Your task to perform on an android device: refresh tabs in the chrome app Image 0: 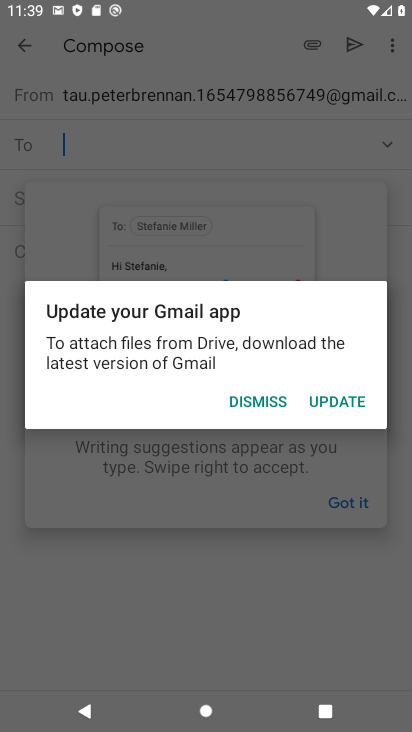
Step 0: press back button
Your task to perform on an android device: refresh tabs in the chrome app Image 1: 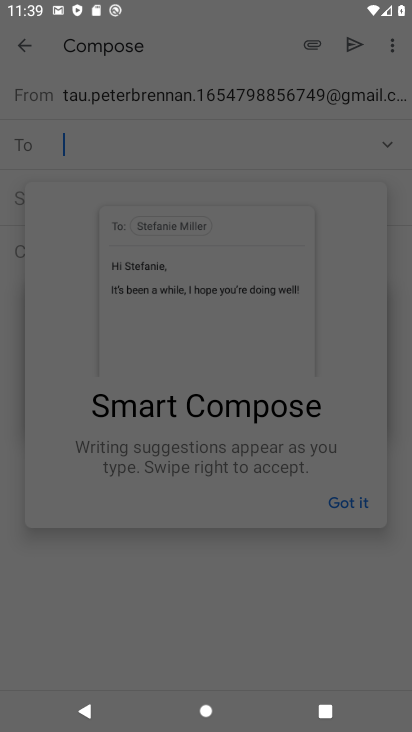
Step 1: press home button
Your task to perform on an android device: refresh tabs in the chrome app Image 2: 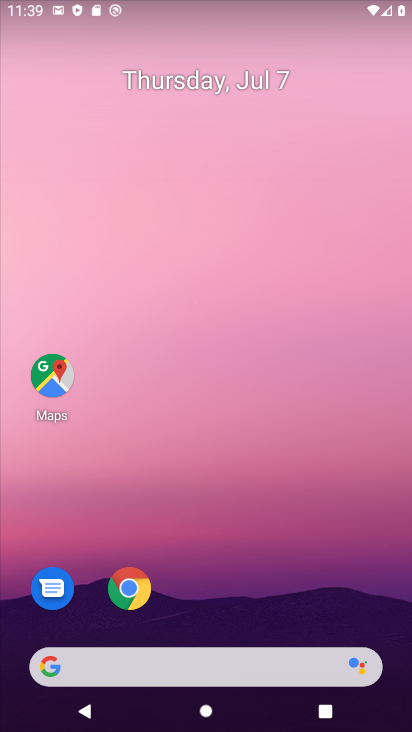
Step 2: click (130, 580)
Your task to perform on an android device: refresh tabs in the chrome app Image 3: 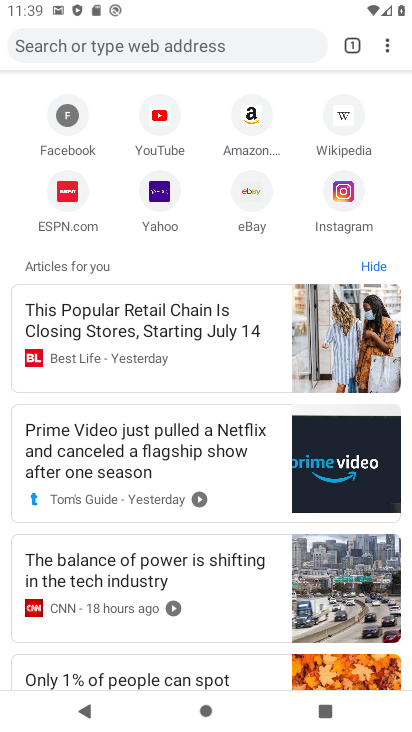
Step 3: click (388, 50)
Your task to perform on an android device: refresh tabs in the chrome app Image 4: 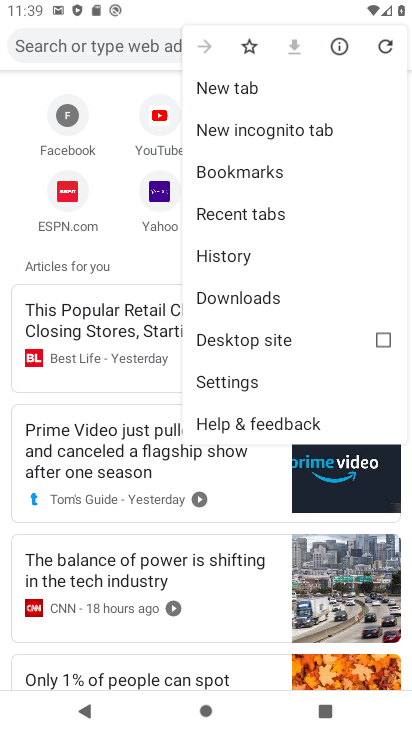
Step 4: click (378, 50)
Your task to perform on an android device: refresh tabs in the chrome app Image 5: 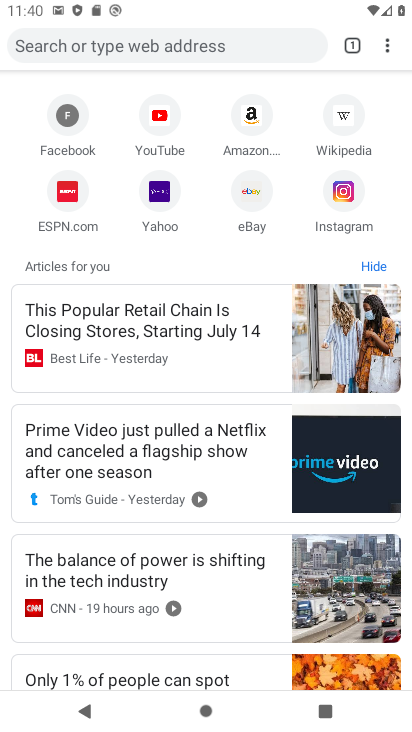
Step 5: task complete